Your task to perform on an android device: Toggle the flashlight Image 0: 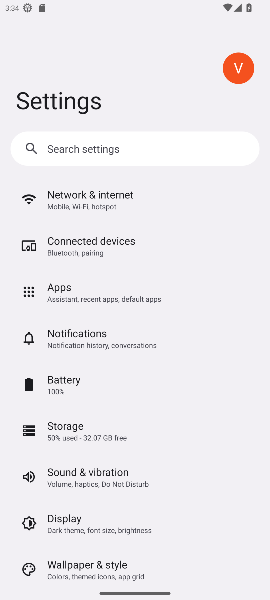
Step 0: drag from (82, 10) to (208, 589)
Your task to perform on an android device: Toggle the flashlight Image 1: 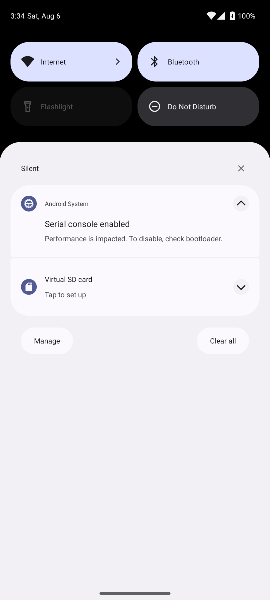
Step 1: task complete